Your task to perform on an android device: Open the web browser Image 0: 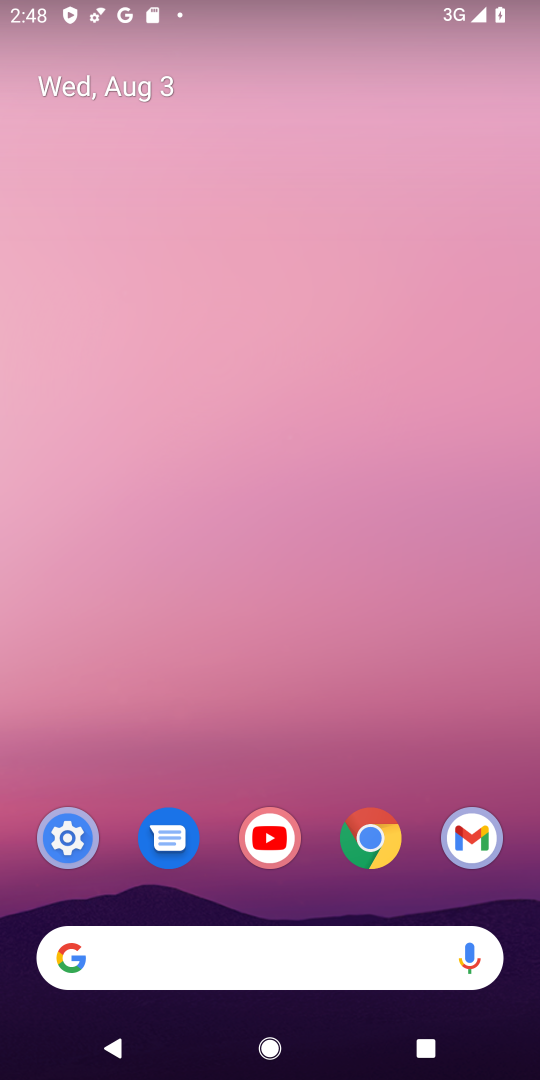
Step 0: click (360, 844)
Your task to perform on an android device: Open the web browser Image 1: 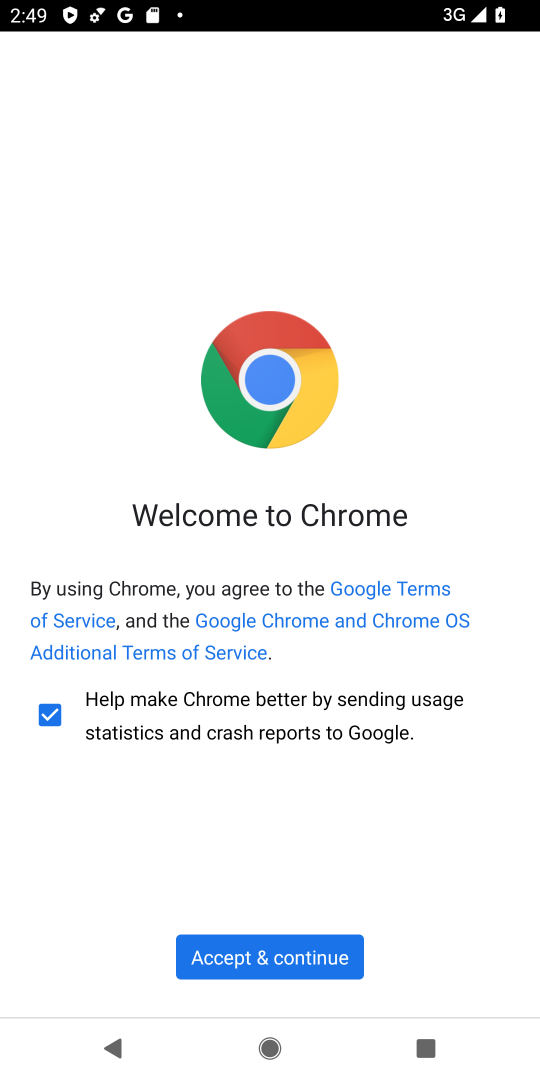
Step 1: click (253, 948)
Your task to perform on an android device: Open the web browser Image 2: 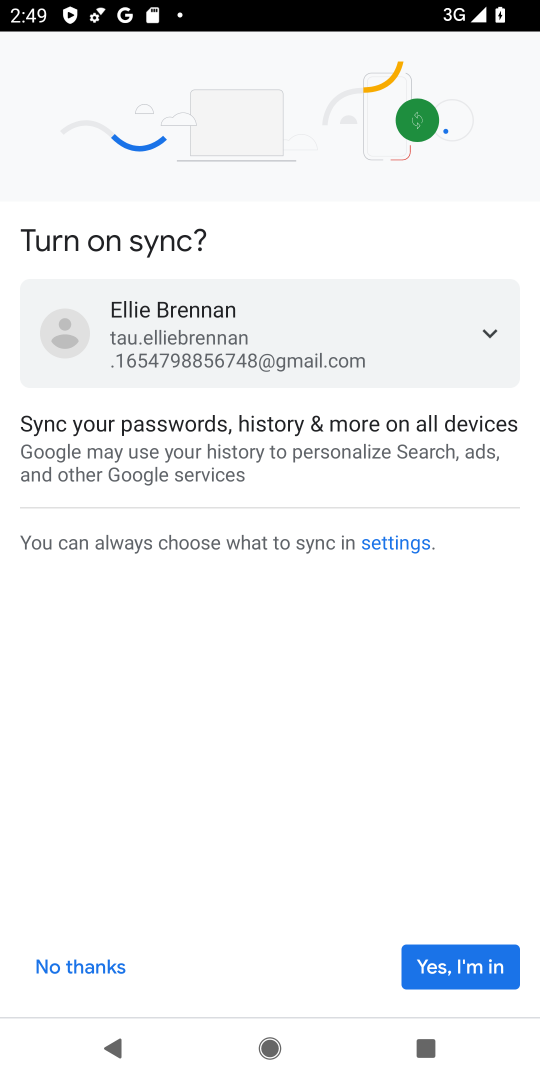
Step 2: click (425, 960)
Your task to perform on an android device: Open the web browser Image 3: 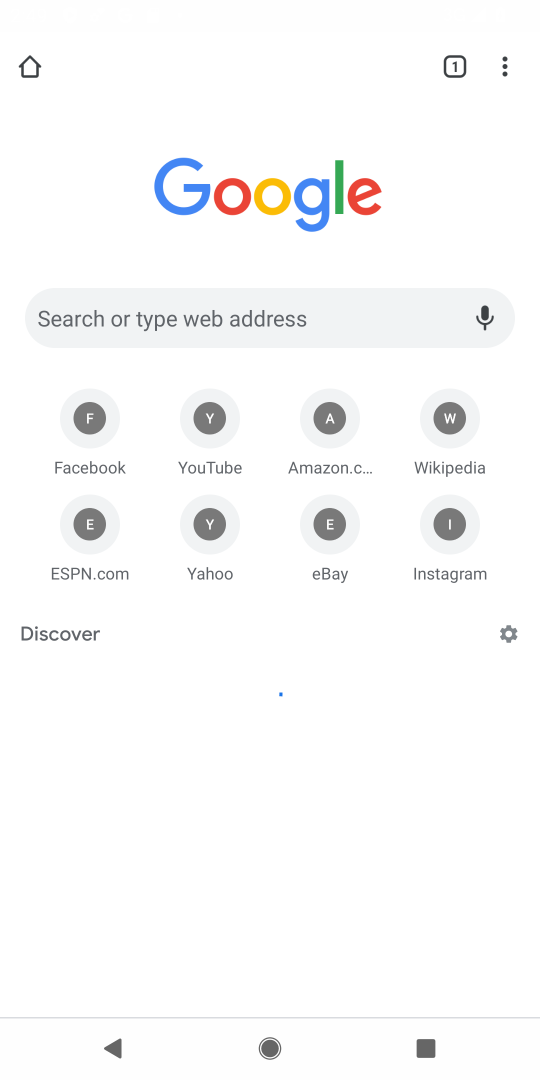
Step 3: click (425, 960)
Your task to perform on an android device: Open the web browser Image 4: 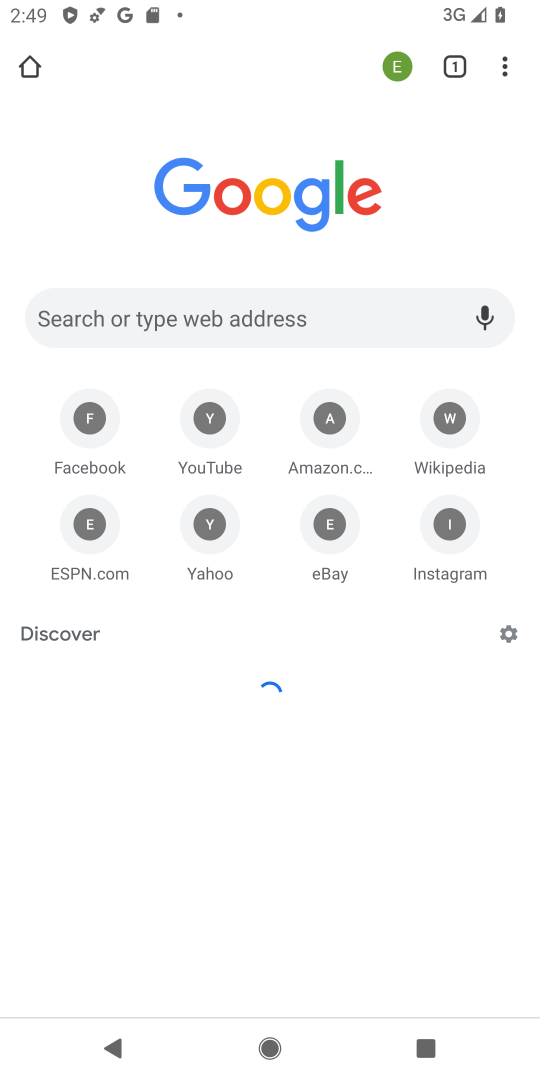
Step 4: task complete